Your task to perform on an android device: Open Chrome and go to settings Image 0: 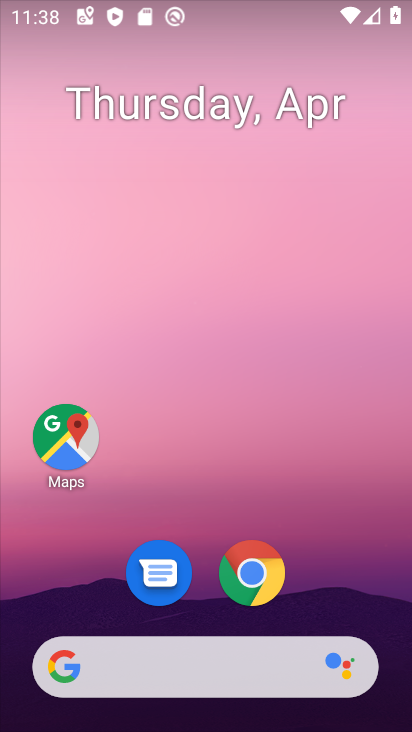
Step 0: drag from (304, 434) to (285, 50)
Your task to perform on an android device: Open Chrome and go to settings Image 1: 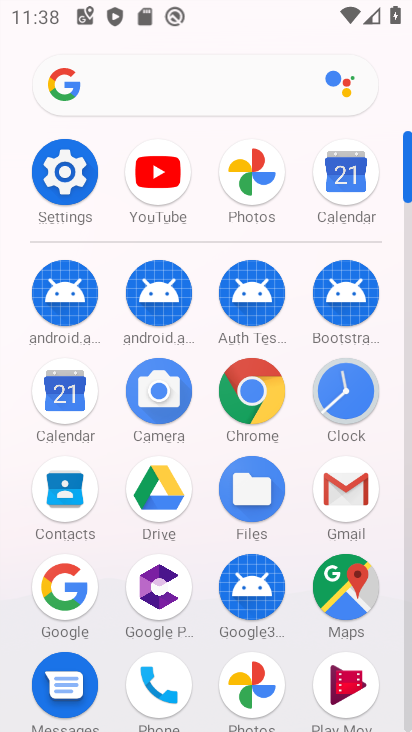
Step 1: click (255, 389)
Your task to perform on an android device: Open Chrome and go to settings Image 2: 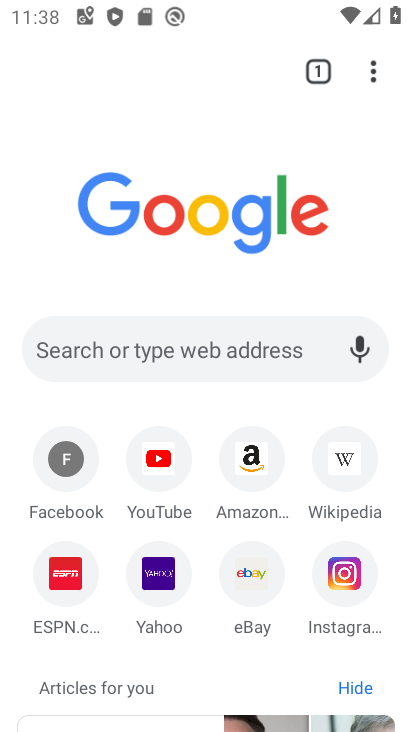
Step 2: click (375, 69)
Your task to perform on an android device: Open Chrome and go to settings Image 3: 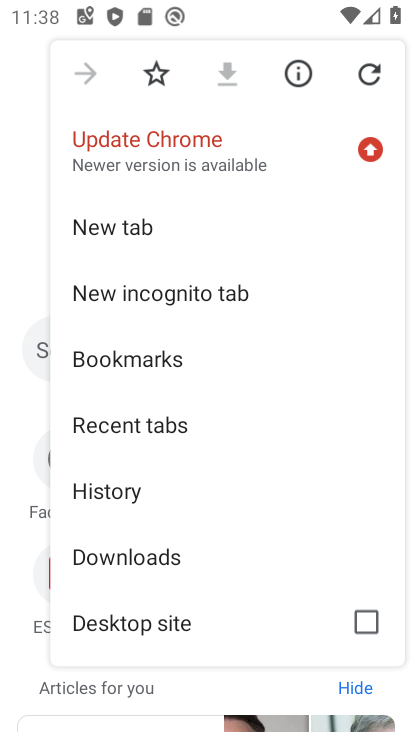
Step 3: drag from (175, 553) to (162, 134)
Your task to perform on an android device: Open Chrome and go to settings Image 4: 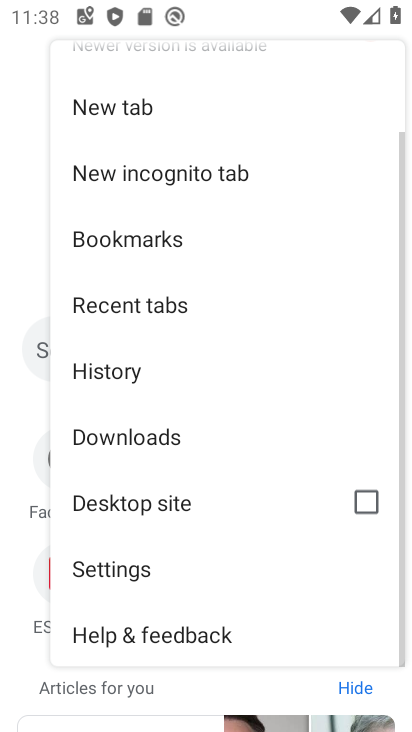
Step 4: click (149, 581)
Your task to perform on an android device: Open Chrome and go to settings Image 5: 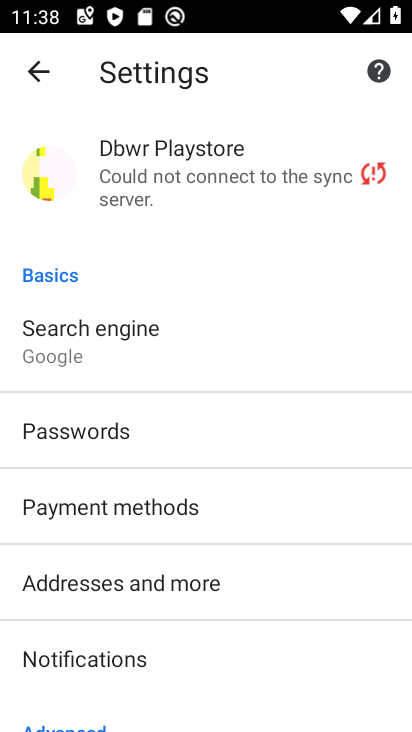
Step 5: task complete